Your task to perform on an android device: turn pop-ups off in chrome Image 0: 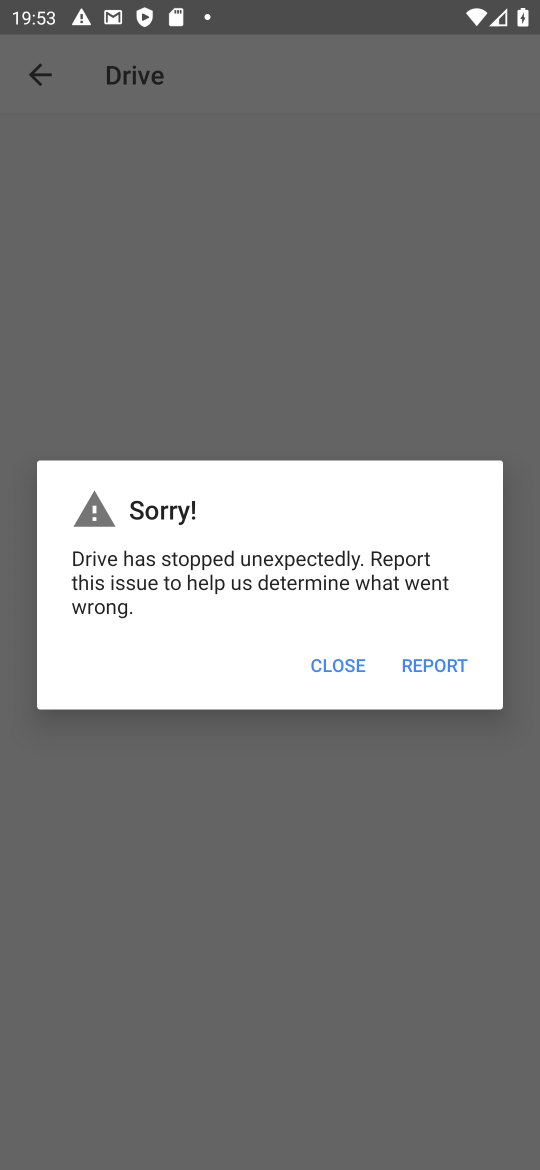
Step 0: press home button
Your task to perform on an android device: turn pop-ups off in chrome Image 1: 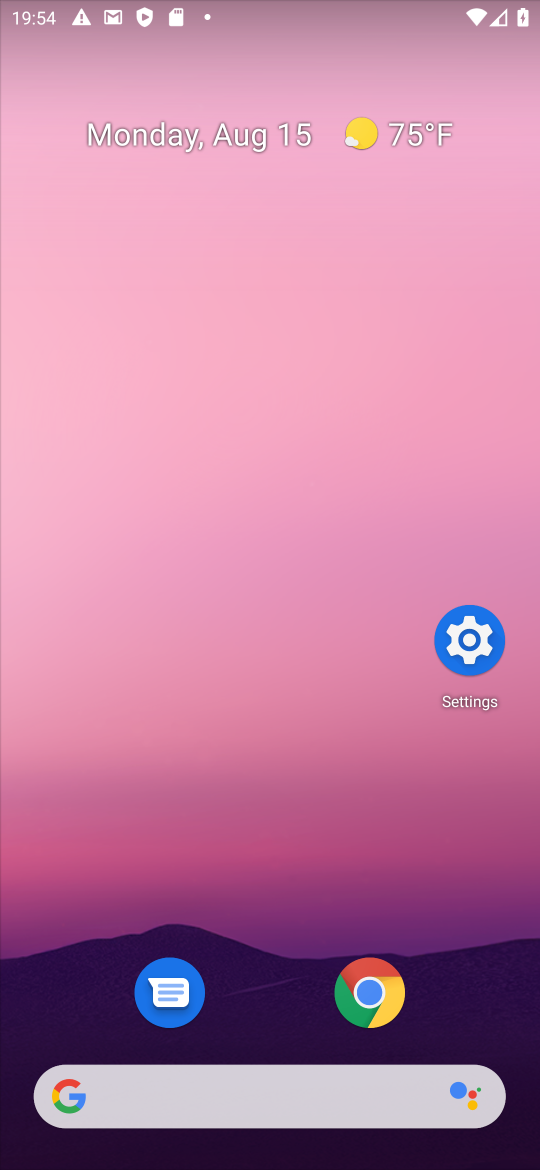
Step 1: click (369, 996)
Your task to perform on an android device: turn pop-ups off in chrome Image 2: 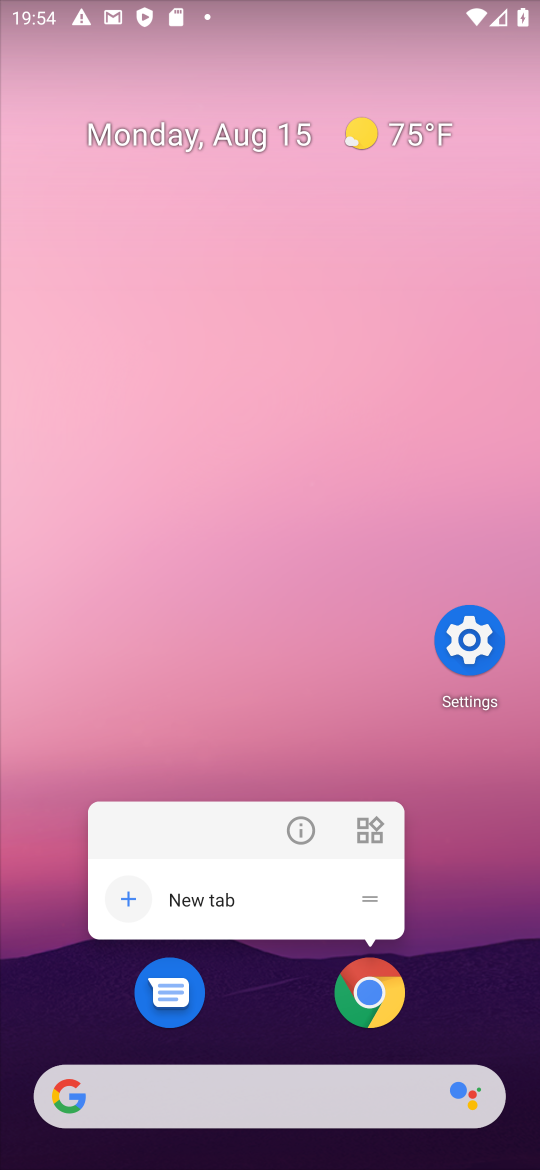
Step 2: click (371, 1005)
Your task to perform on an android device: turn pop-ups off in chrome Image 3: 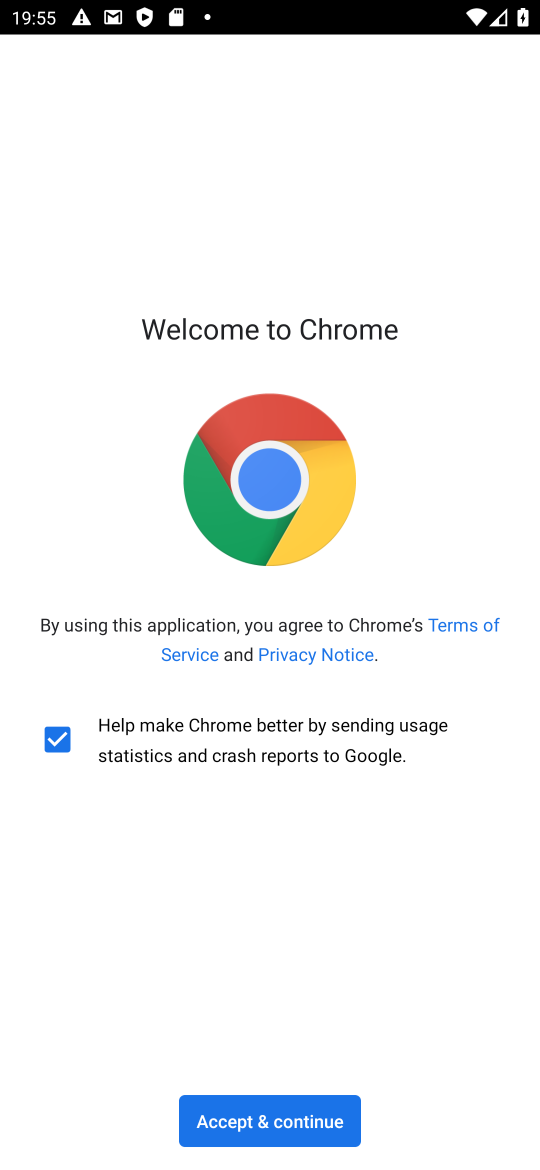
Step 3: click (300, 1133)
Your task to perform on an android device: turn pop-ups off in chrome Image 4: 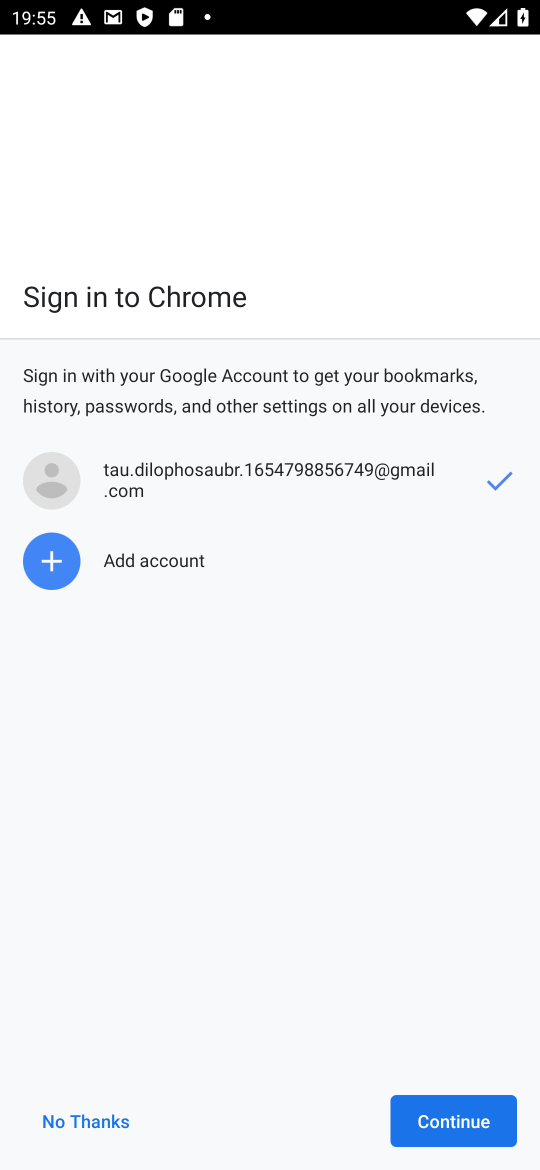
Step 4: click (435, 1118)
Your task to perform on an android device: turn pop-ups off in chrome Image 5: 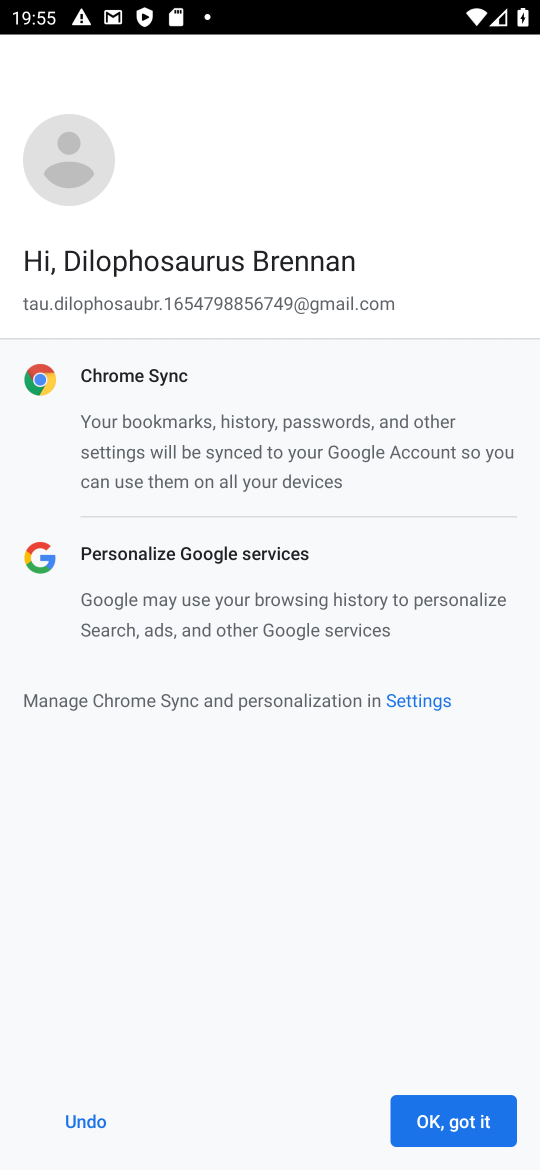
Step 5: click (459, 1116)
Your task to perform on an android device: turn pop-ups off in chrome Image 6: 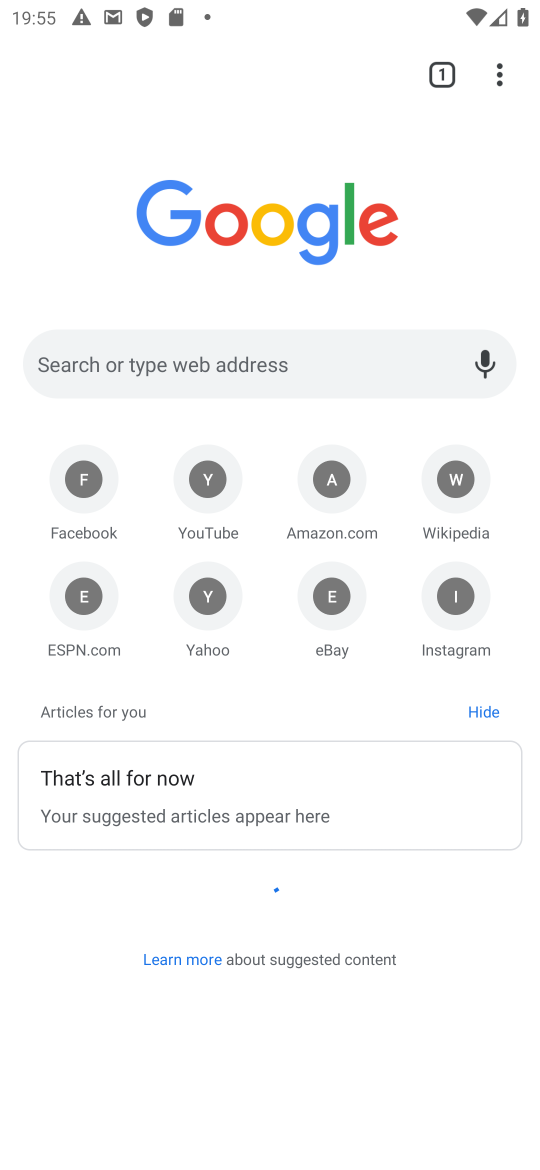
Step 6: drag from (501, 81) to (334, 632)
Your task to perform on an android device: turn pop-ups off in chrome Image 7: 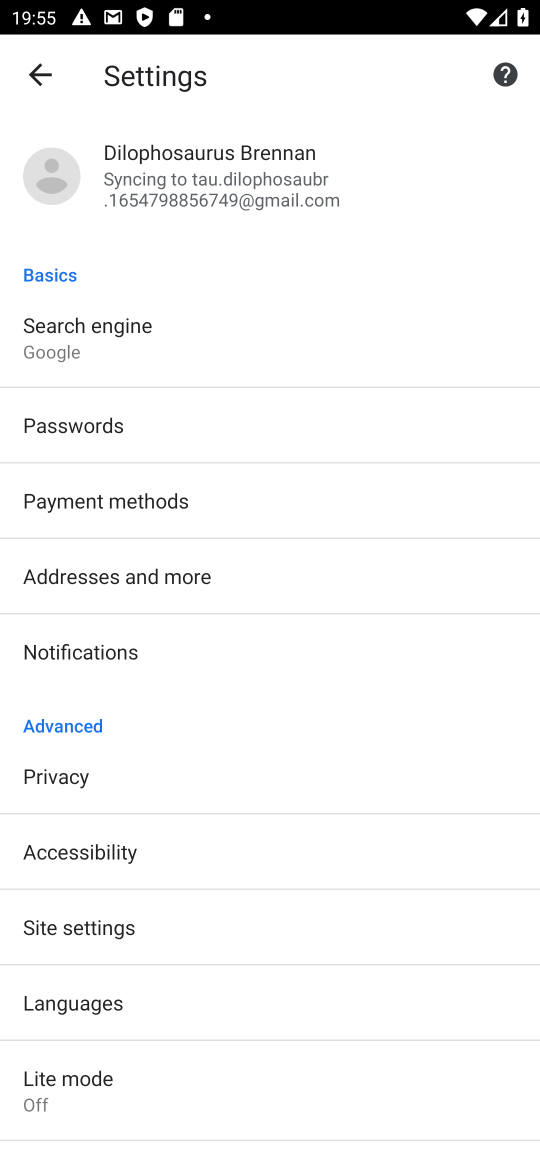
Step 7: drag from (224, 1005) to (322, 463)
Your task to perform on an android device: turn pop-ups off in chrome Image 8: 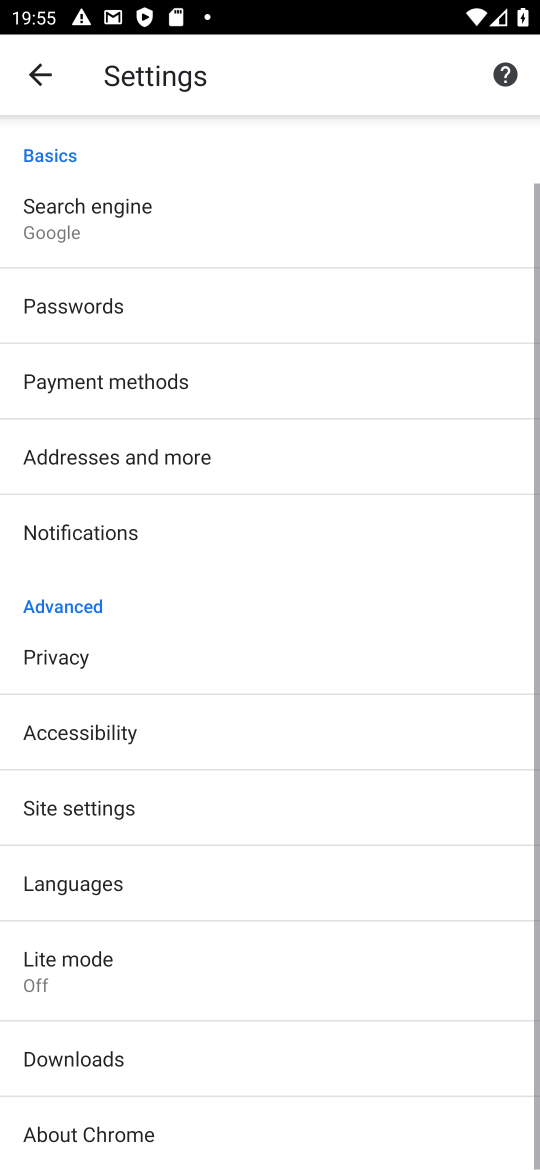
Step 8: click (125, 808)
Your task to perform on an android device: turn pop-ups off in chrome Image 9: 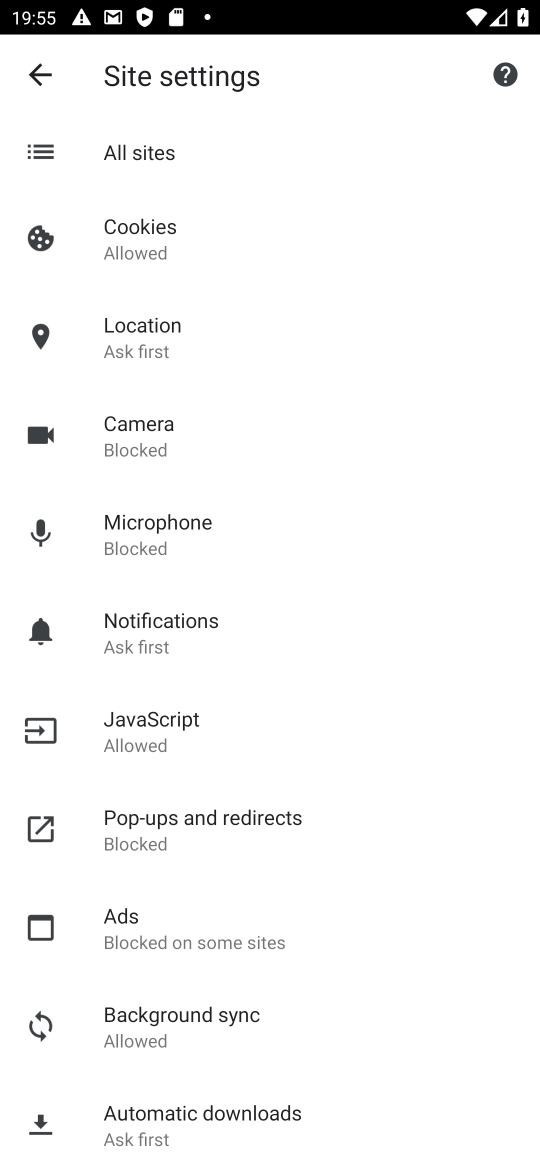
Step 9: click (186, 823)
Your task to perform on an android device: turn pop-ups off in chrome Image 10: 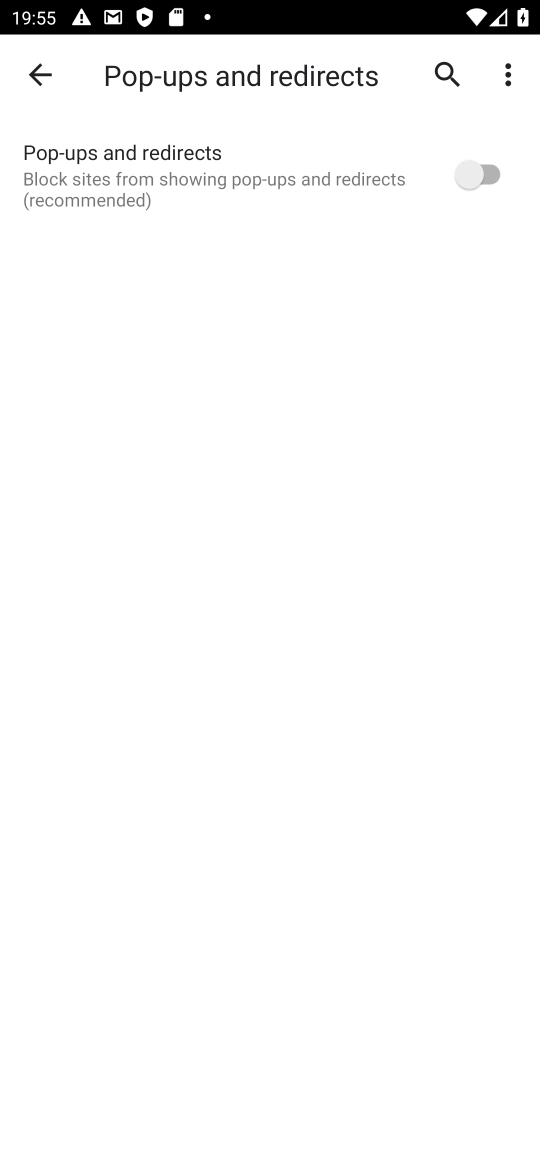
Step 10: task complete